Your task to perform on an android device: toggle javascript in the chrome app Image 0: 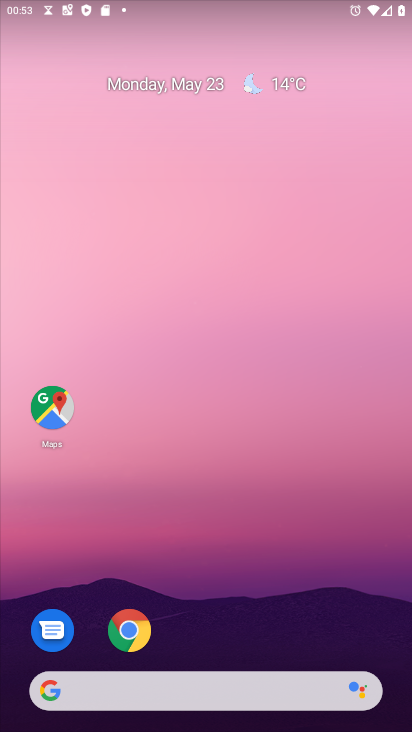
Step 0: click (143, 626)
Your task to perform on an android device: toggle javascript in the chrome app Image 1: 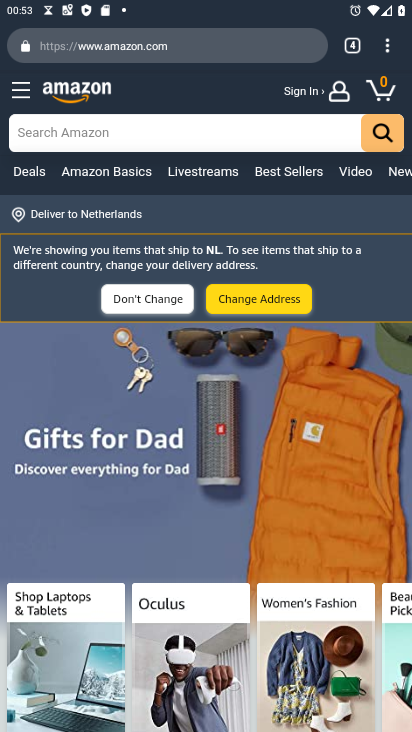
Step 1: click (385, 45)
Your task to perform on an android device: toggle javascript in the chrome app Image 2: 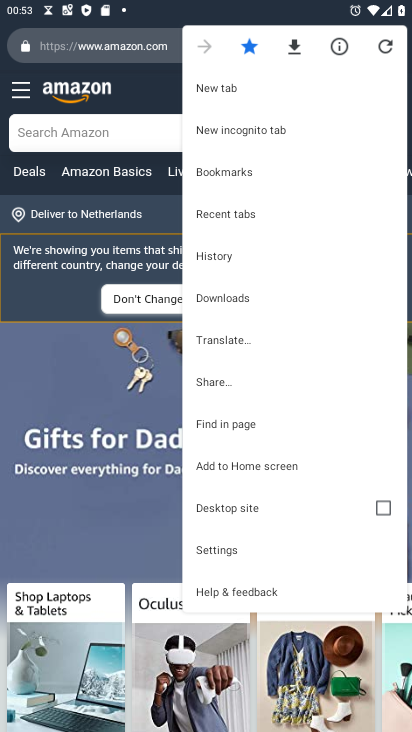
Step 2: click (243, 542)
Your task to perform on an android device: toggle javascript in the chrome app Image 3: 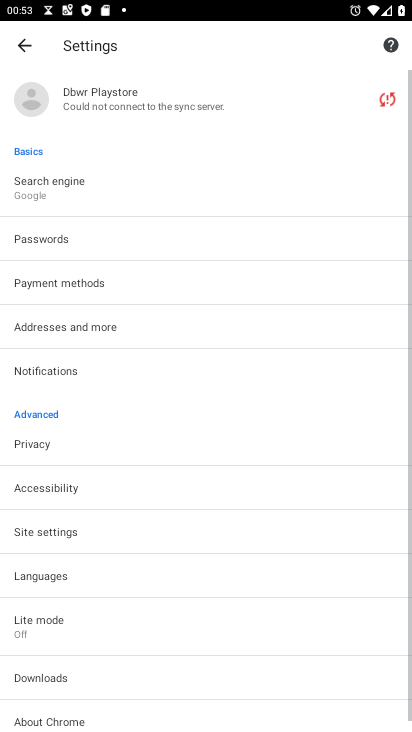
Step 3: drag from (152, 615) to (148, 465)
Your task to perform on an android device: toggle javascript in the chrome app Image 4: 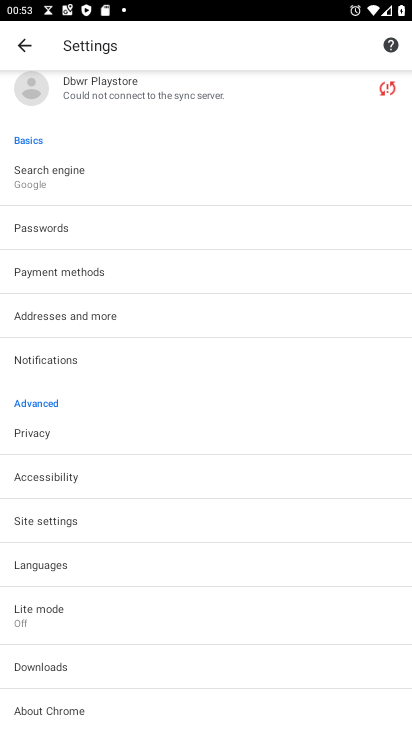
Step 4: click (91, 530)
Your task to perform on an android device: toggle javascript in the chrome app Image 5: 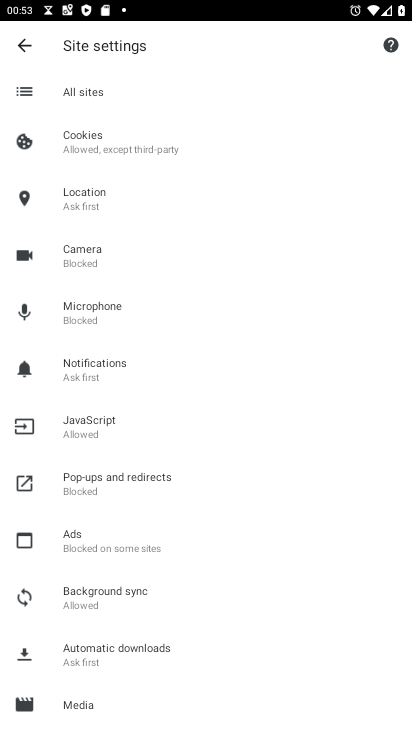
Step 5: click (117, 441)
Your task to perform on an android device: toggle javascript in the chrome app Image 6: 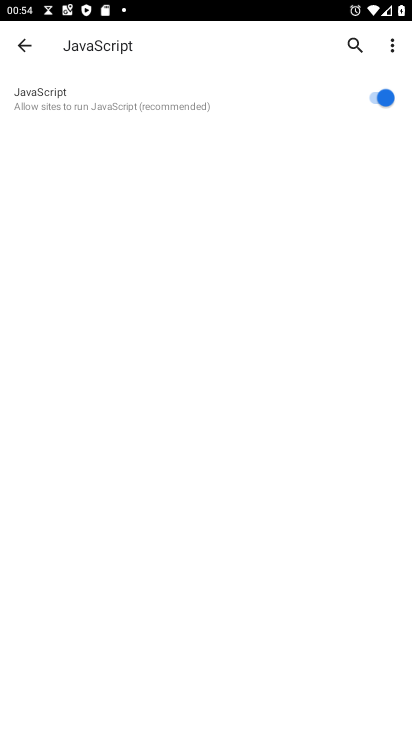
Step 6: click (376, 96)
Your task to perform on an android device: toggle javascript in the chrome app Image 7: 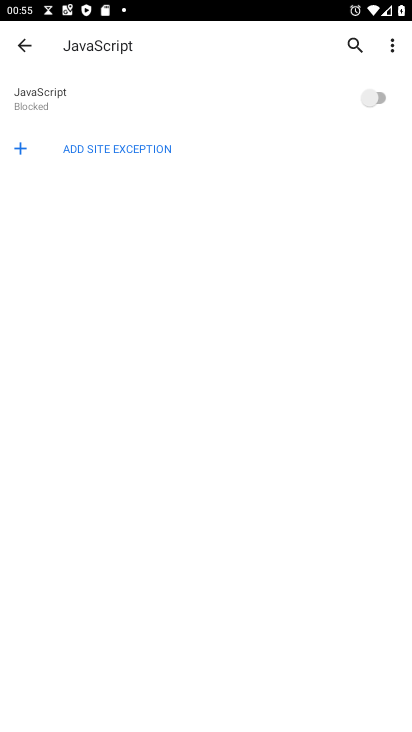
Step 7: task complete